Your task to perform on an android device: What is the news today? Image 0: 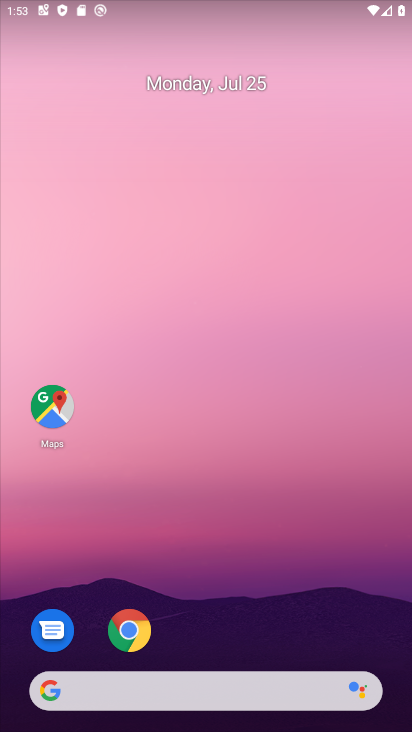
Step 0: task complete